Your task to perform on an android device: Go to Yahoo.com Image 0: 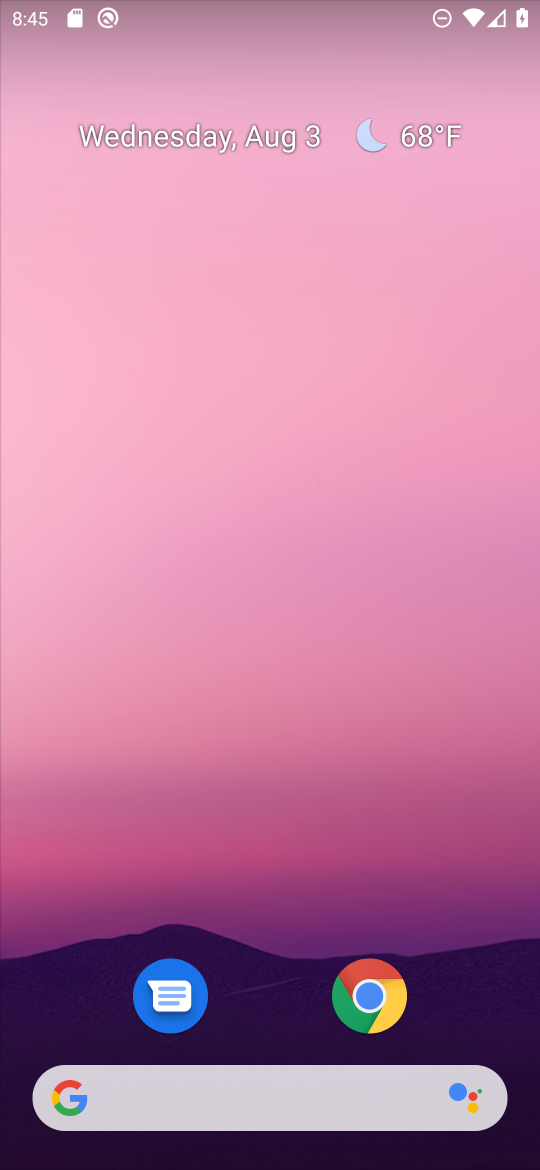
Step 0: click (304, 1098)
Your task to perform on an android device: Go to Yahoo.com Image 1: 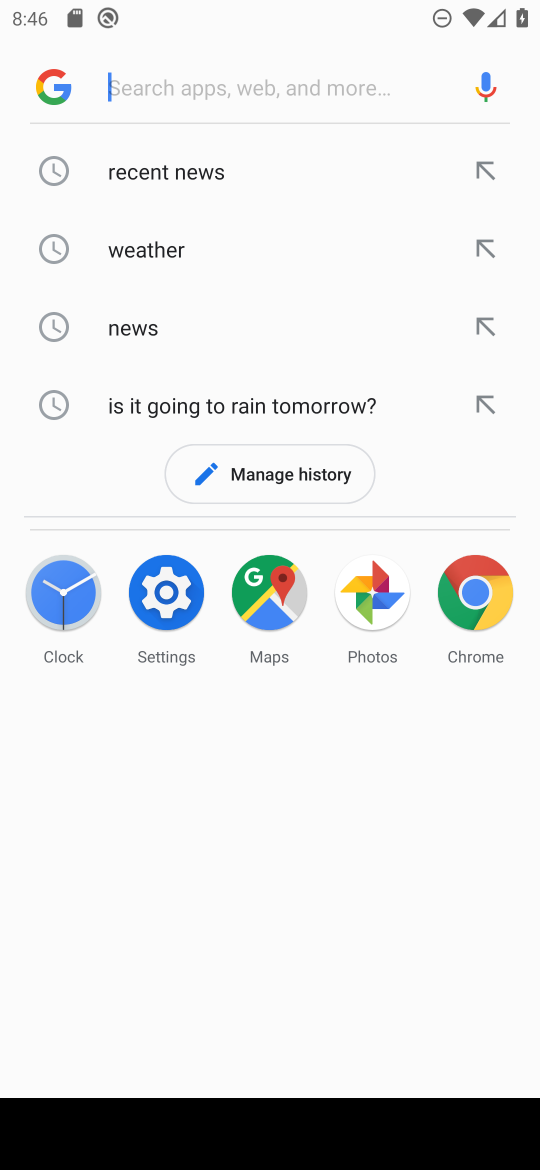
Step 1: type "yahoo.com"
Your task to perform on an android device: Go to Yahoo.com Image 2: 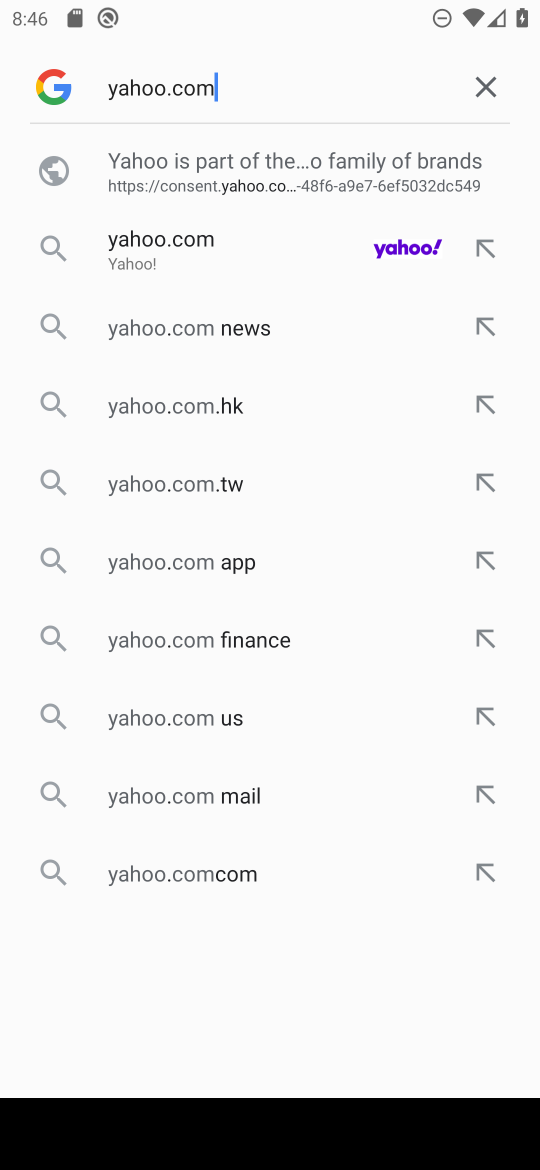
Step 2: click (319, 246)
Your task to perform on an android device: Go to Yahoo.com Image 3: 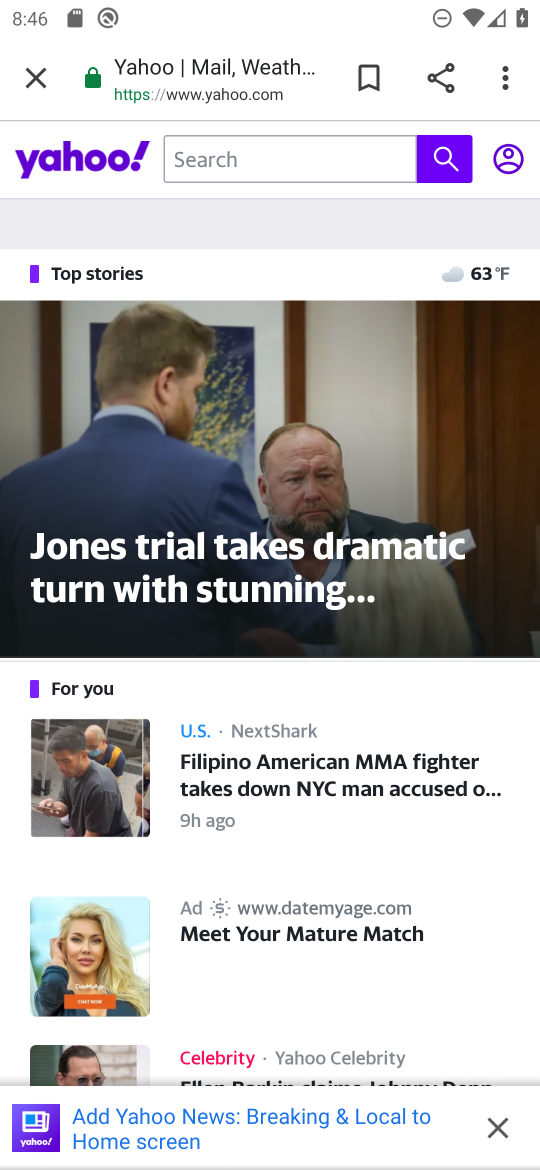
Step 3: task complete